Your task to perform on an android device: turn off improve location accuracy Image 0: 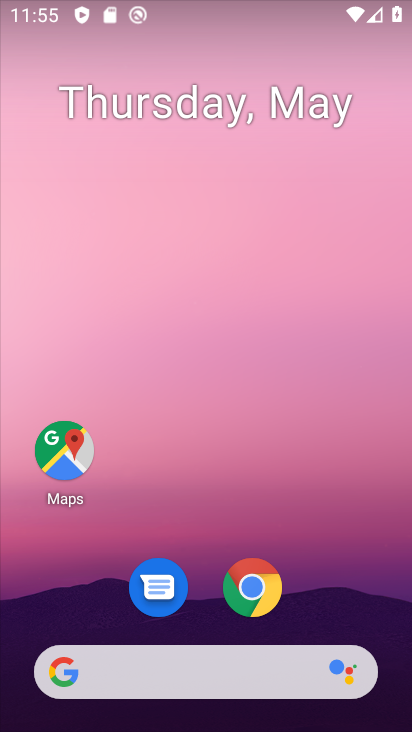
Step 0: drag from (189, 629) to (261, 159)
Your task to perform on an android device: turn off improve location accuracy Image 1: 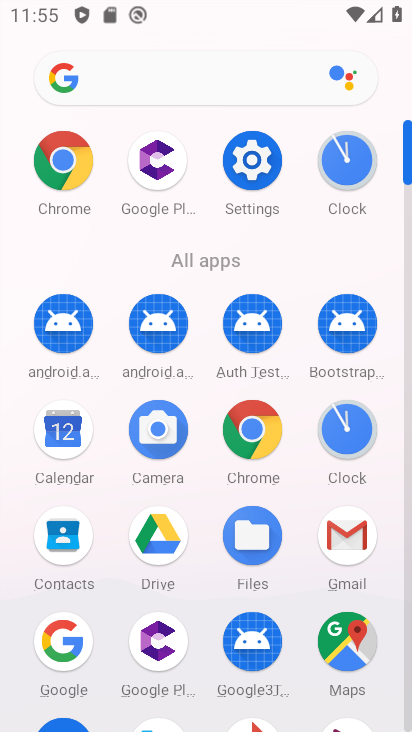
Step 1: click (263, 162)
Your task to perform on an android device: turn off improve location accuracy Image 2: 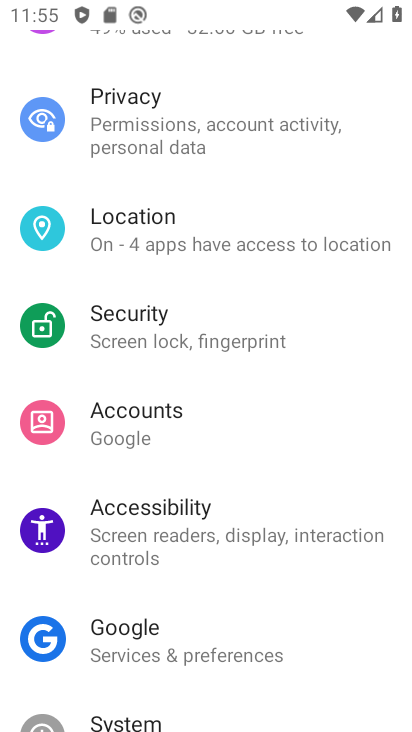
Step 2: click (169, 250)
Your task to perform on an android device: turn off improve location accuracy Image 3: 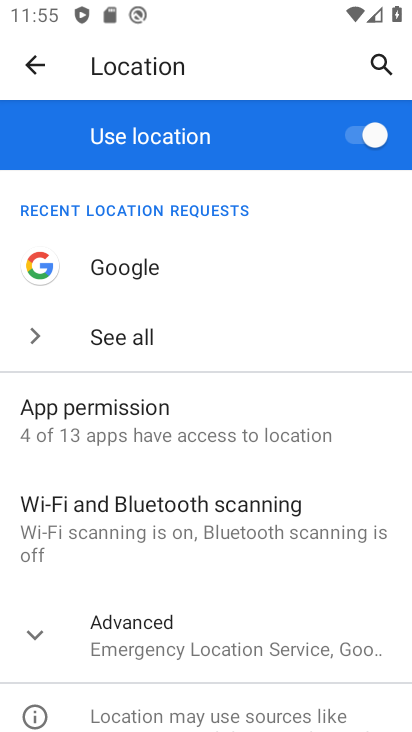
Step 3: click (181, 619)
Your task to perform on an android device: turn off improve location accuracy Image 4: 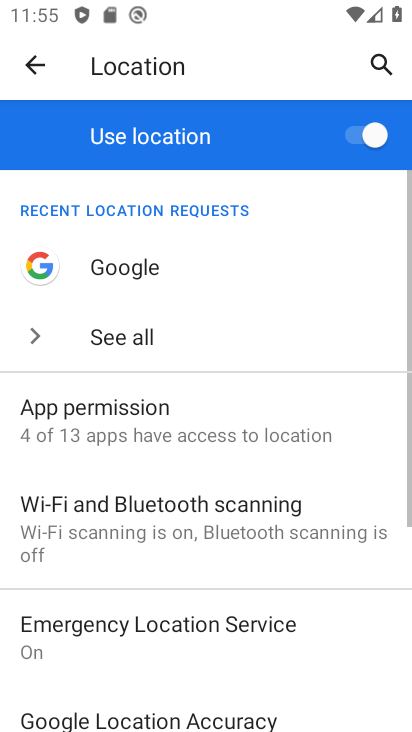
Step 4: drag from (181, 646) to (221, 384)
Your task to perform on an android device: turn off improve location accuracy Image 5: 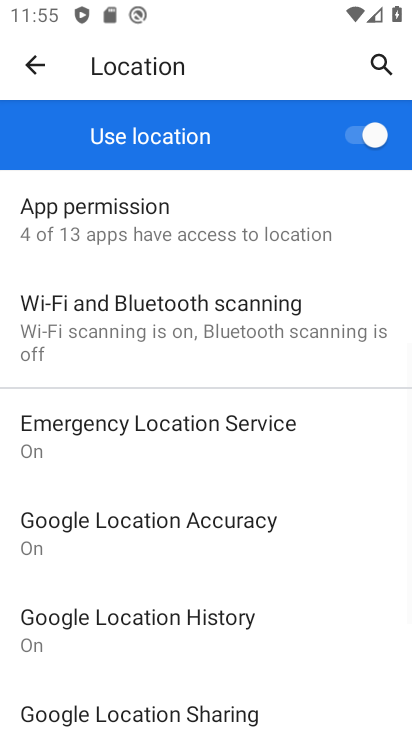
Step 5: click (144, 512)
Your task to perform on an android device: turn off improve location accuracy Image 6: 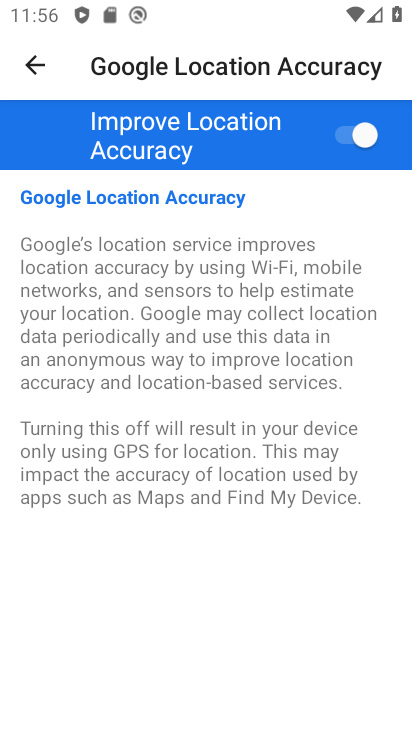
Step 6: click (354, 134)
Your task to perform on an android device: turn off improve location accuracy Image 7: 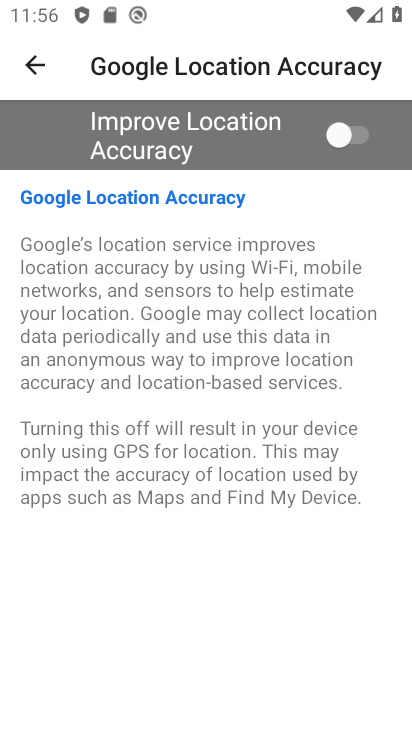
Step 7: task complete